Your task to perform on an android device: Search for seafood restaurants on Google Maps Image 0: 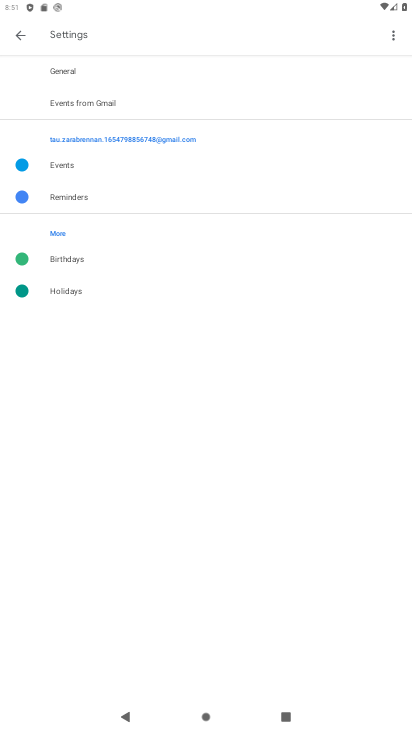
Step 0: press home button
Your task to perform on an android device: Search for seafood restaurants on Google Maps Image 1: 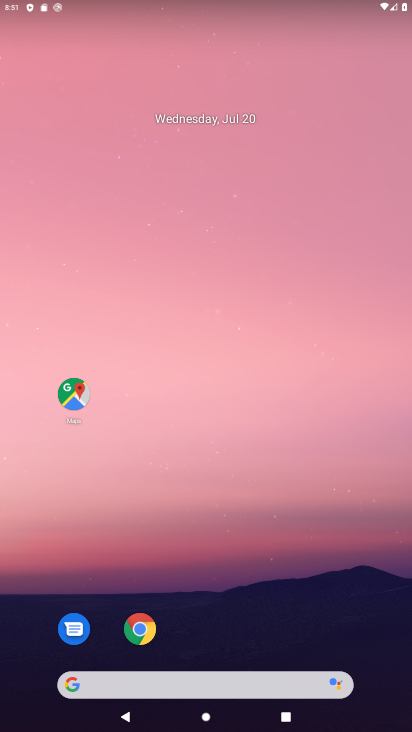
Step 1: click (75, 396)
Your task to perform on an android device: Search for seafood restaurants on Google Maps Image 2: 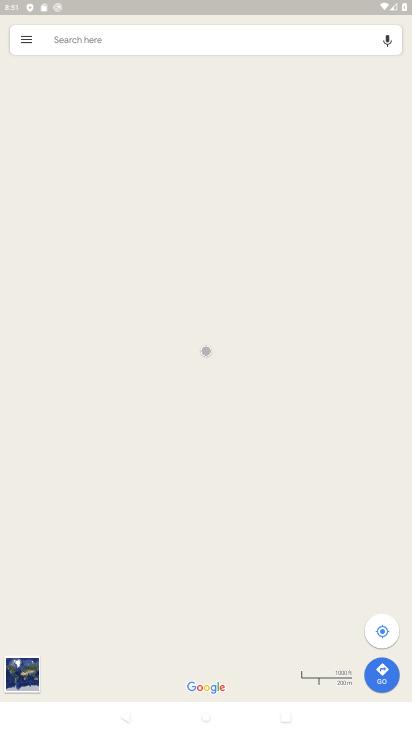
Step 2: click (106, 33)
Your task to perform on an android device: Search for seafood restaurants on Google Maps Image 3: 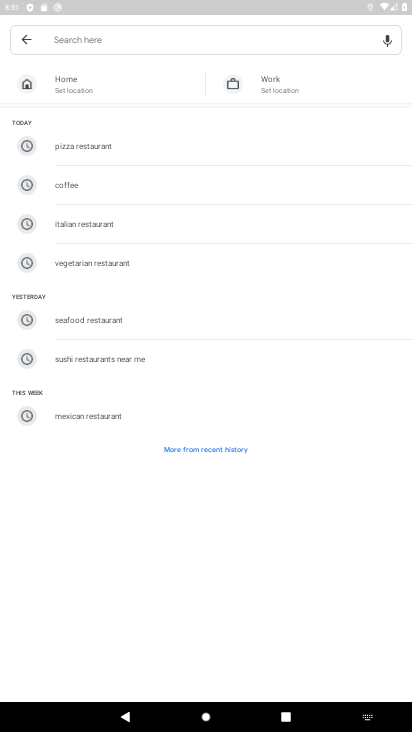
Step 3: type "seafood restaurants"
Your task to perform on an android device: Search for seafood restaurants on Google Maps Image 4: 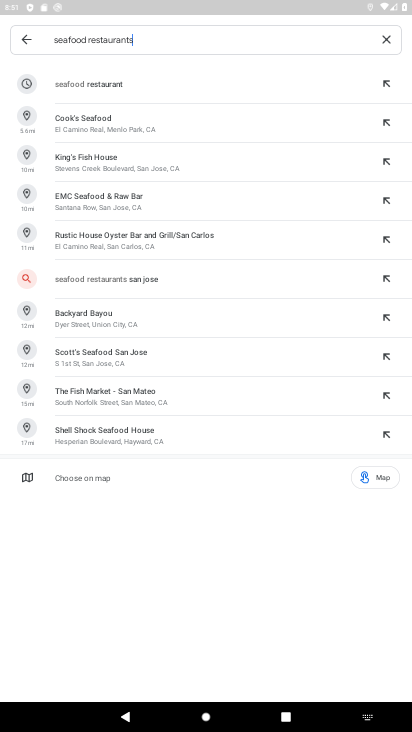
Step 4: click (99, 86)
Your task to perform on an android device: Search for seafood restaurants on Google Maps Image 5: 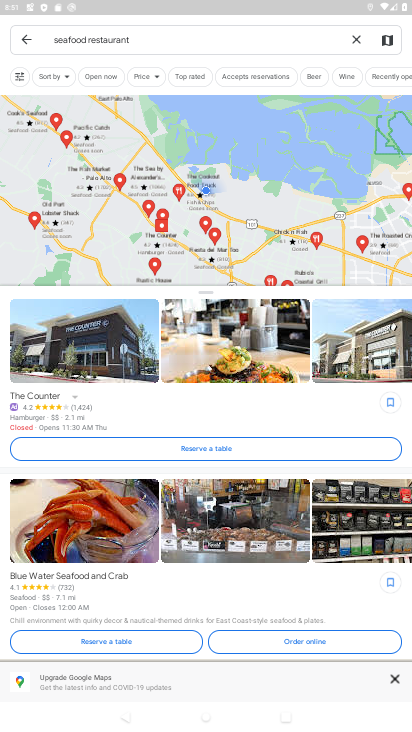
Step 5: task complete